Your task to perform on an android device: move an email to a new category in the gmail app Image 0: 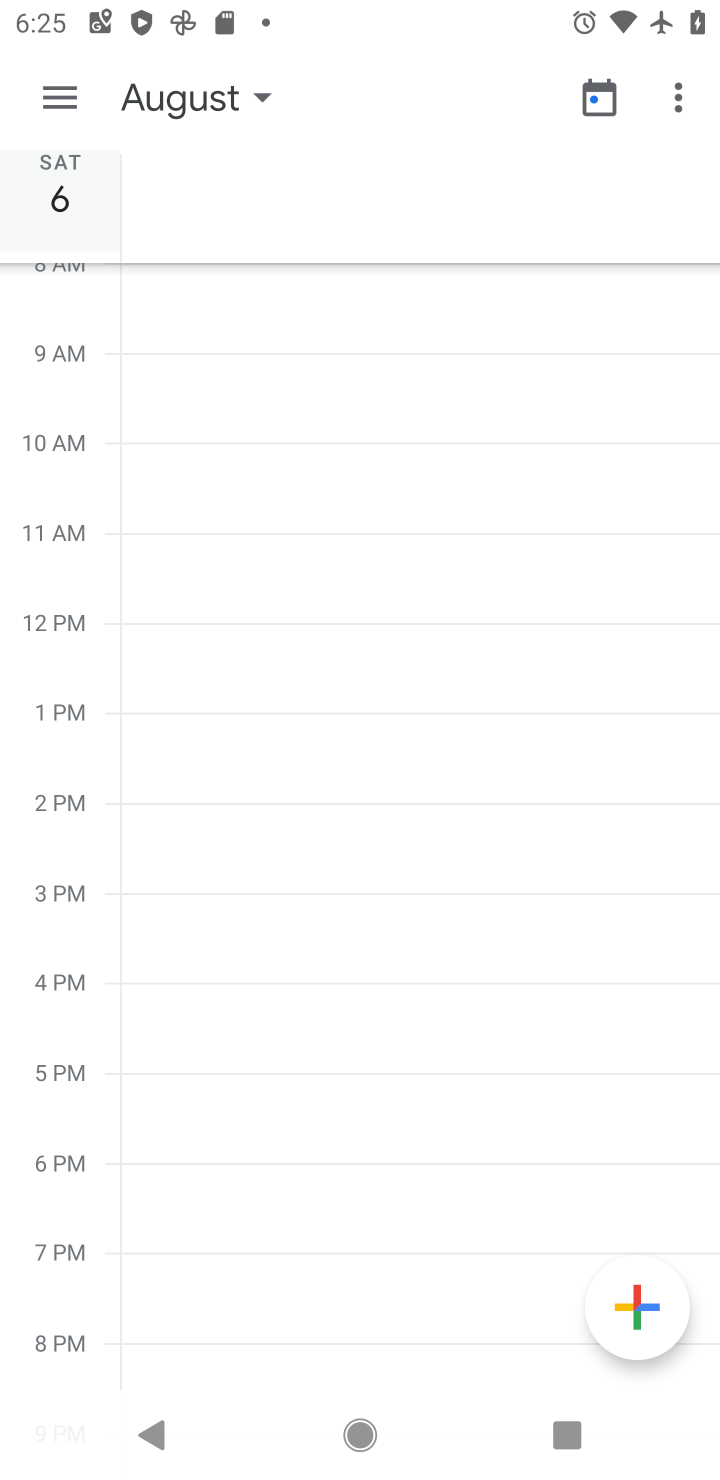
Step 0: press home button
Your task to perform on an android device: move an email to a new category in the gmail app Image 1: 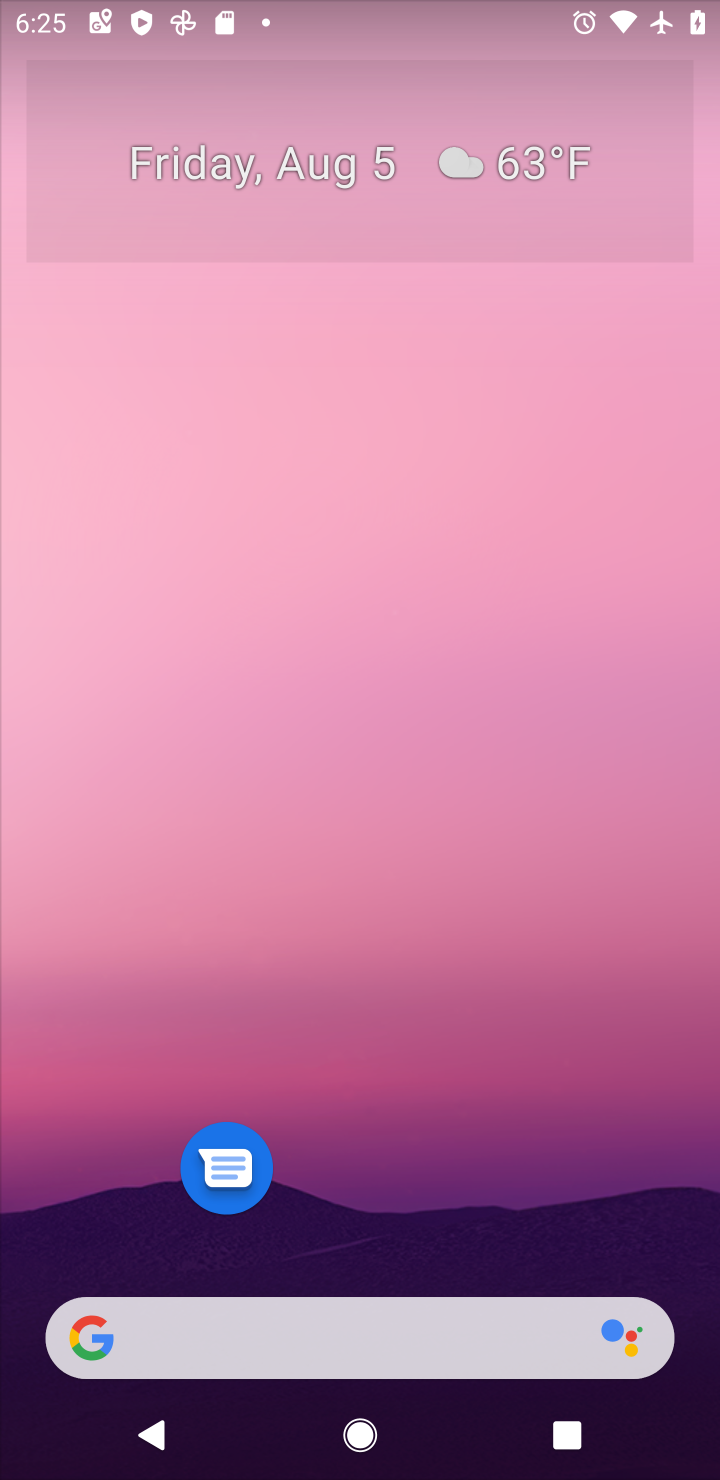
Step 1: drag from (371, 1176) to (424, 419)
Your task to perform on an android device: move an email to a new category in the gmail app Image 2: 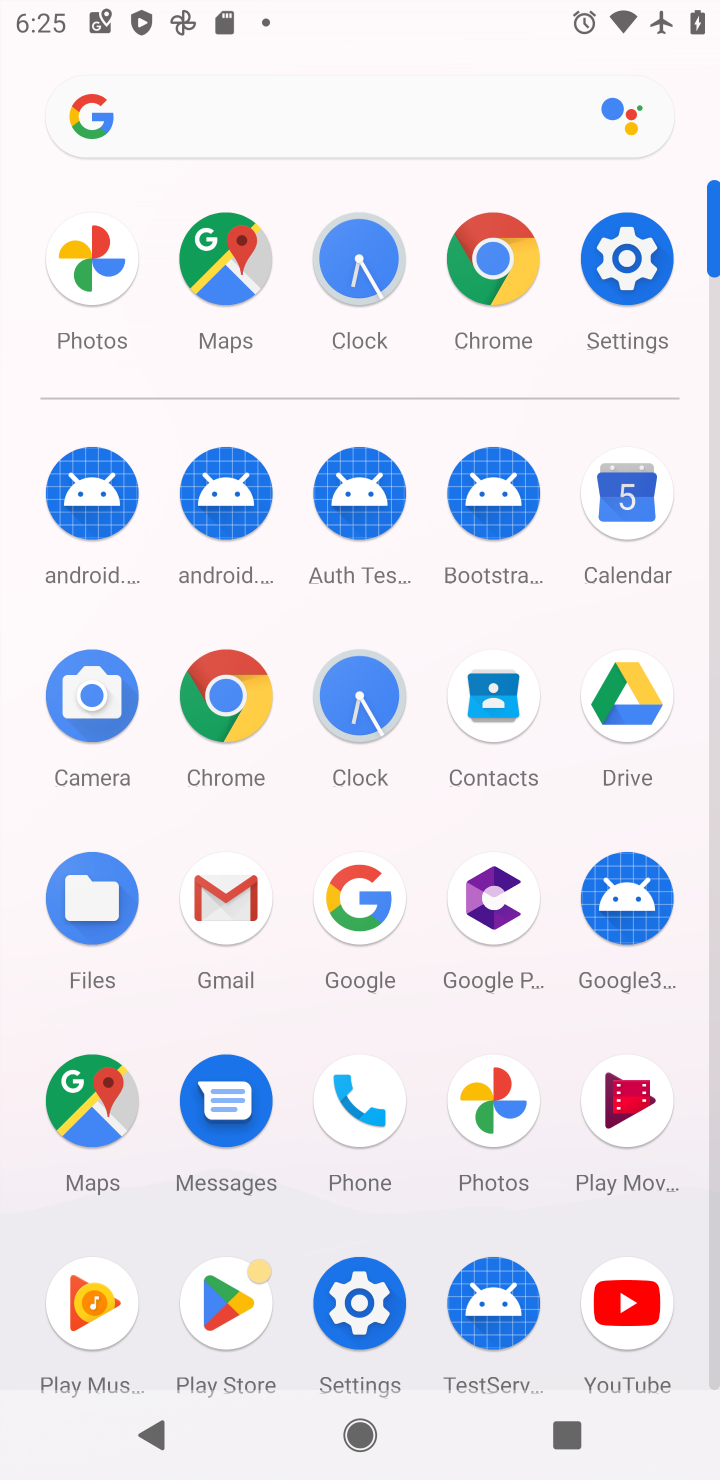
Step 2: click (213, 918)
Your task to perform on an android device: move an email to a new category in the gmail app Image 3: 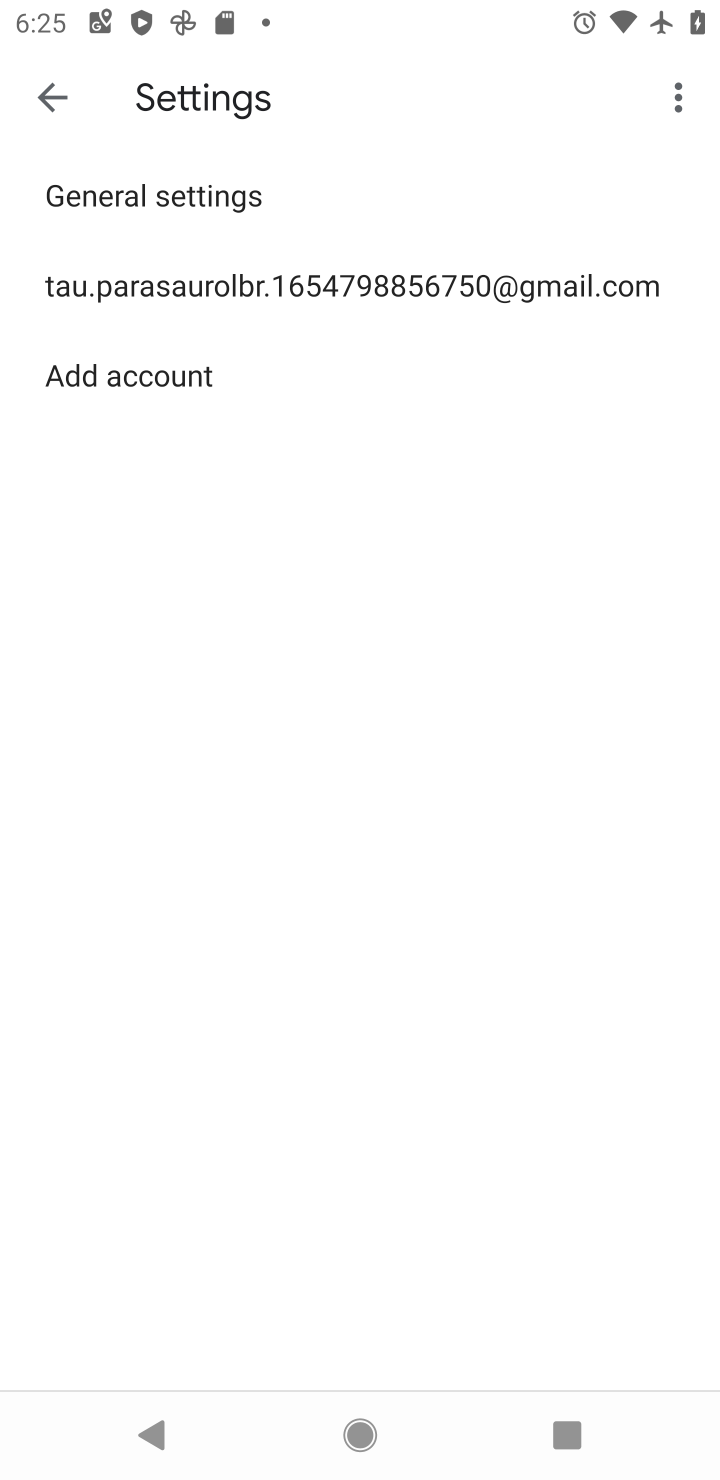
Step 3: click (56, 102)
Your task to perform on an android device: move an email to a new category in the gmail app Image 4: 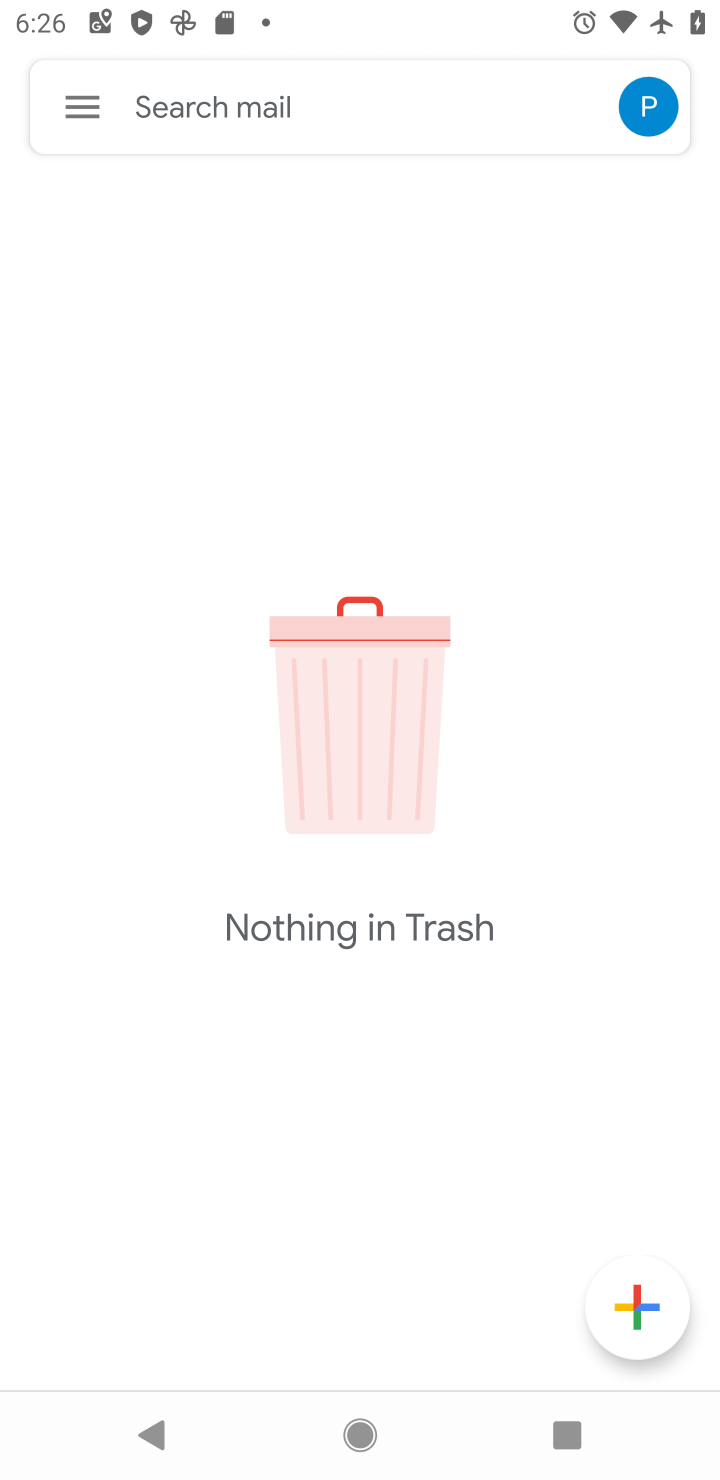
Step 4: click (80, 93)
Your task to perform on an android device: move an email to a new category in the gmail app Image 5: 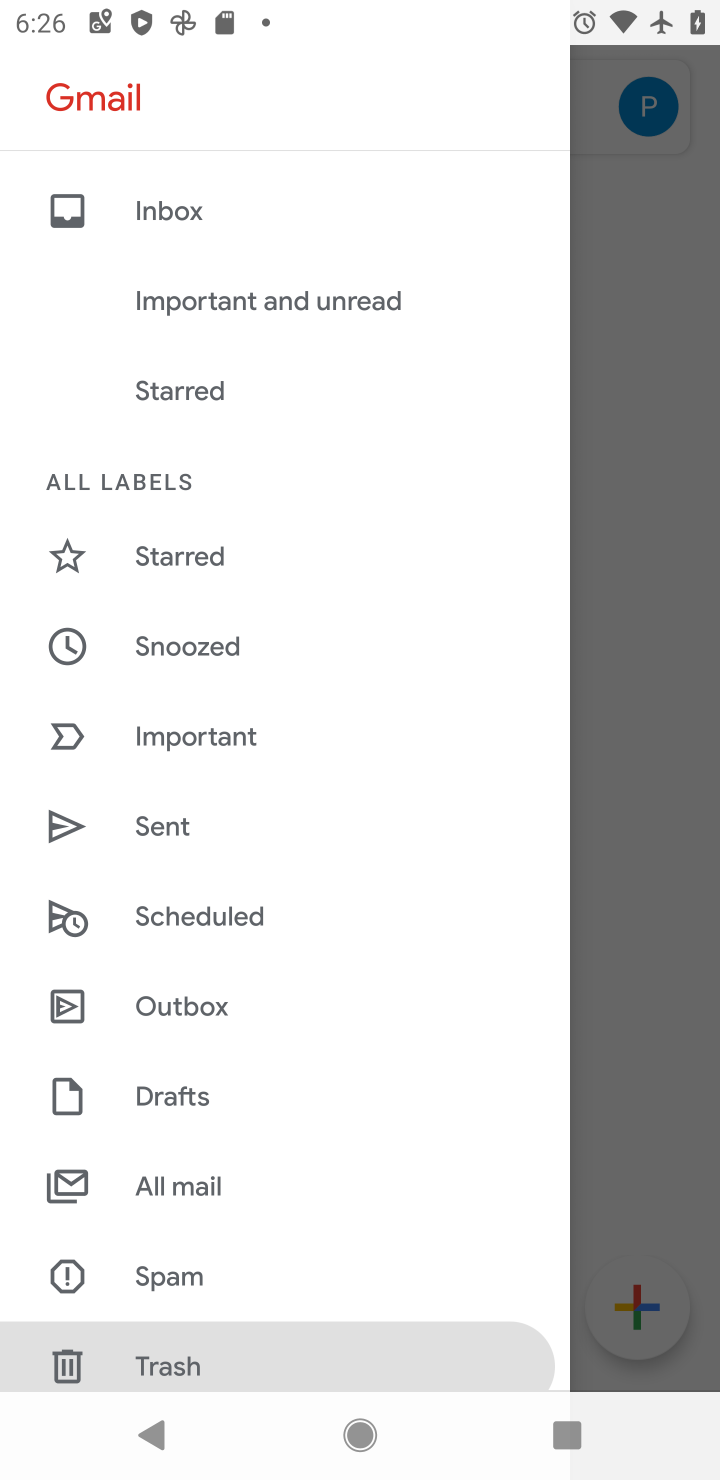
Step 5: click (181, 1192)
Your task to perform on an android device: move an email to a new category in the gmail app Image 6: 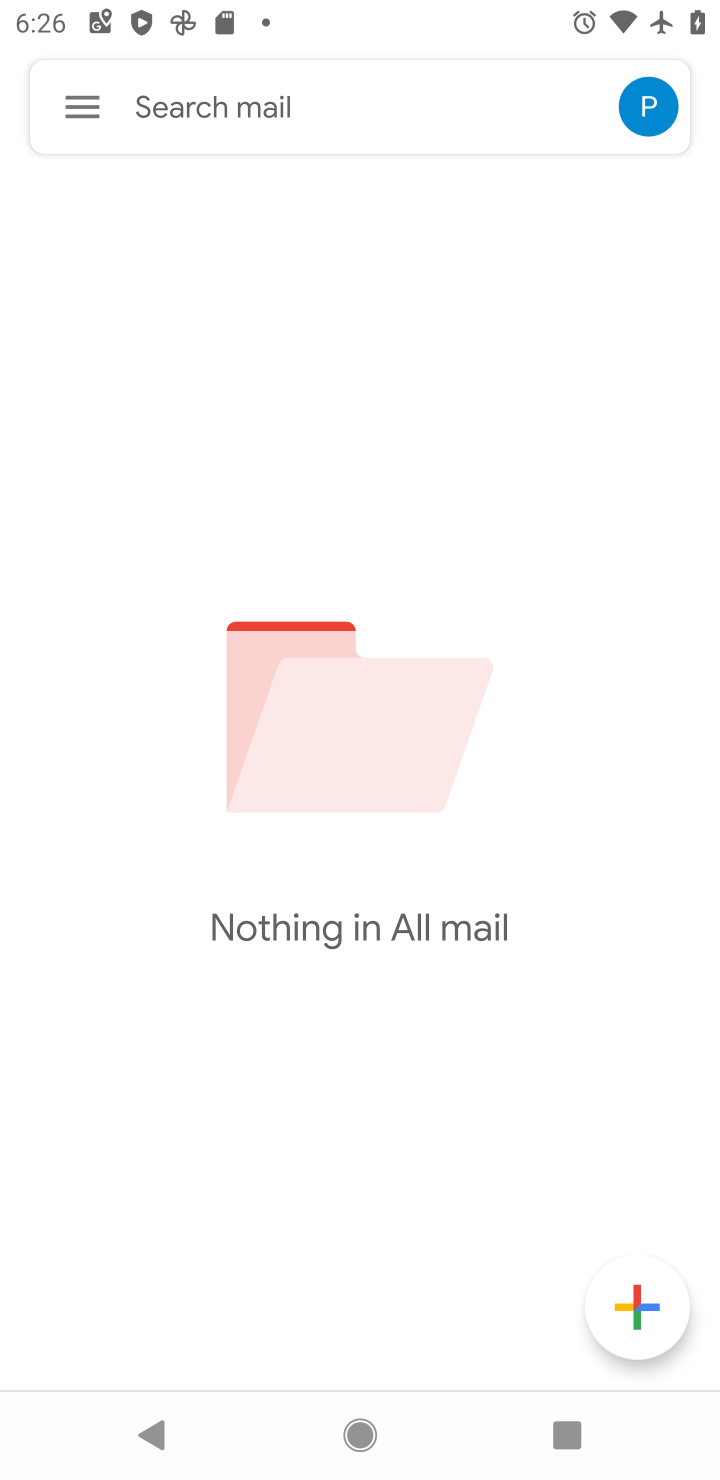
Step 6: task complete